Your task to perform on an android device: turn off priority inbox in the gmail app Image 0: 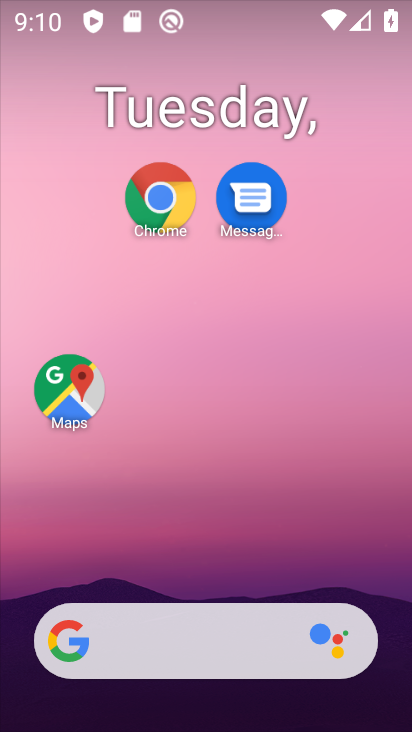
Step 0: drag from (190, 579) to (211, 14)
Your task to perform on an android device: turn off priority inbox in the gmail app Image 1: 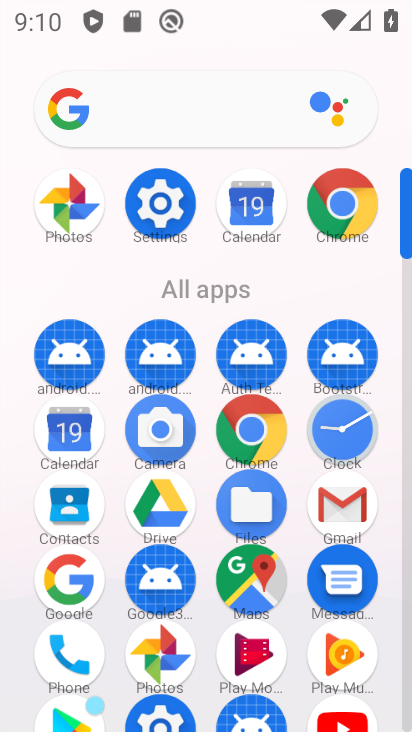
Step 1: click (337, 511)
Your task to perform on an android device: turn off priority inbox in the gmail app Image 2: 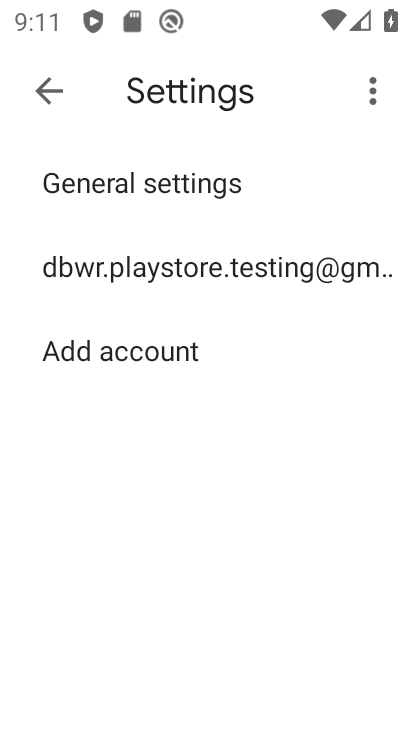
Step 2: click (181, 270)
Your task to perform on an android device: turn off priority inbox in the gmail app Image 3: 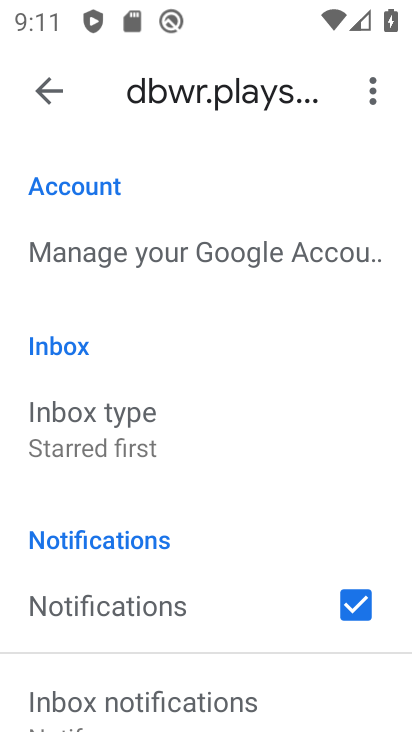
Step 3: click (120, 408)
Your task to perform on an android device: turn off priority inbox in the gmail app Image 4: 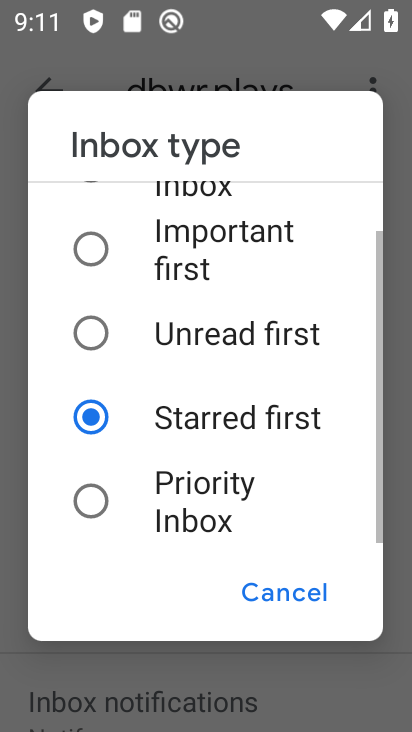
Step 4: task complete